Your task to perform on an android device: Show me popular videos on Youtube Image 0: 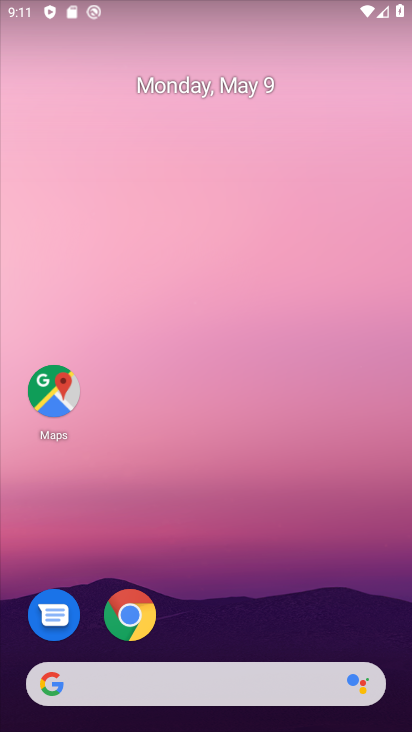
Step 0: drag from (235, 663) to (299, 132)
Your task to perform on an android device: Show me popular videos on Youtube Image 1: 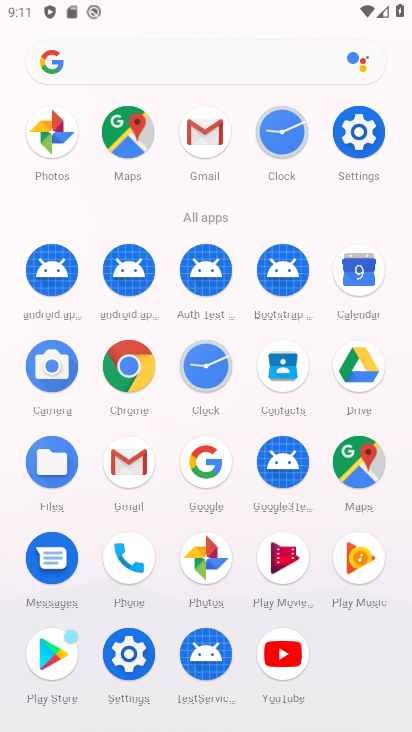
Step 1: click (289, 654)
Your task to perform on an android device: Show me popular videos on Youtube Image 2: 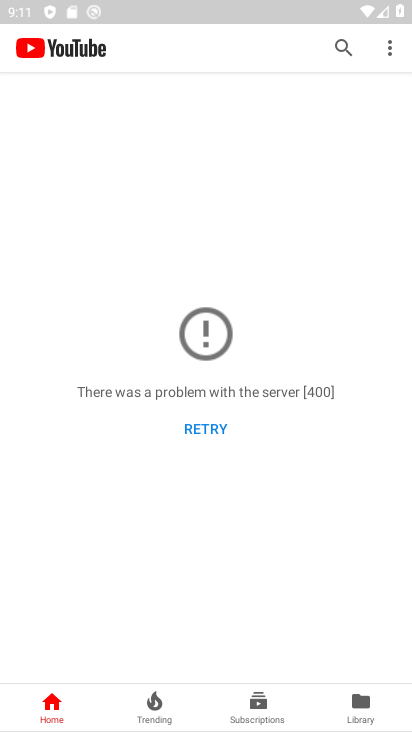
Step 2: task complete